Your task to perform on an android device: Show me some nice wallpapers for my desktop Image 0: 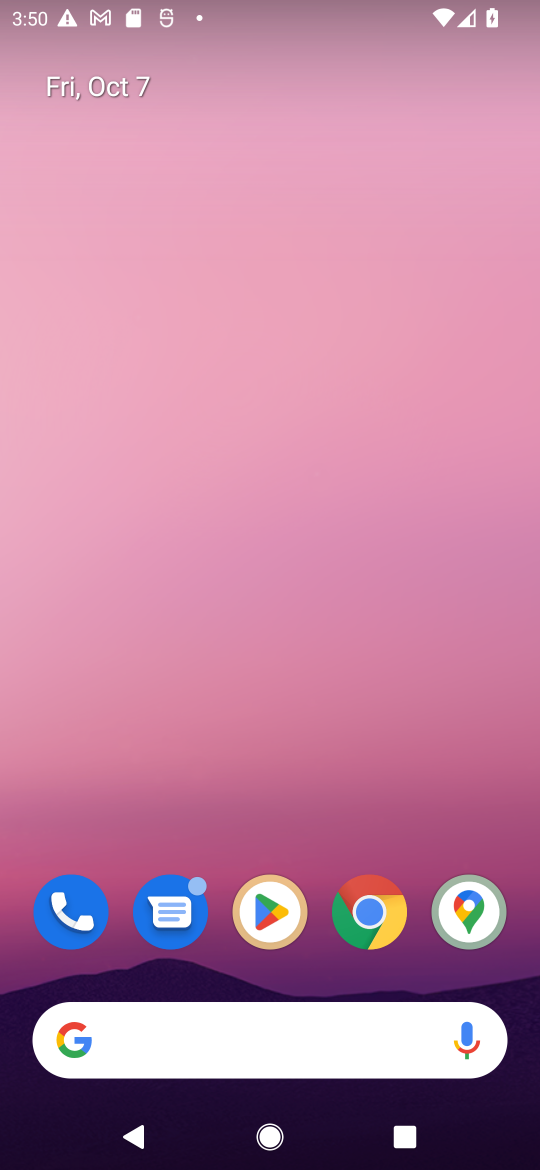
Step 0: drag from (229, 958) to (300, 328)
Your task to perform on an android device: Show me some nice wallpapers for my desktop Image 1: 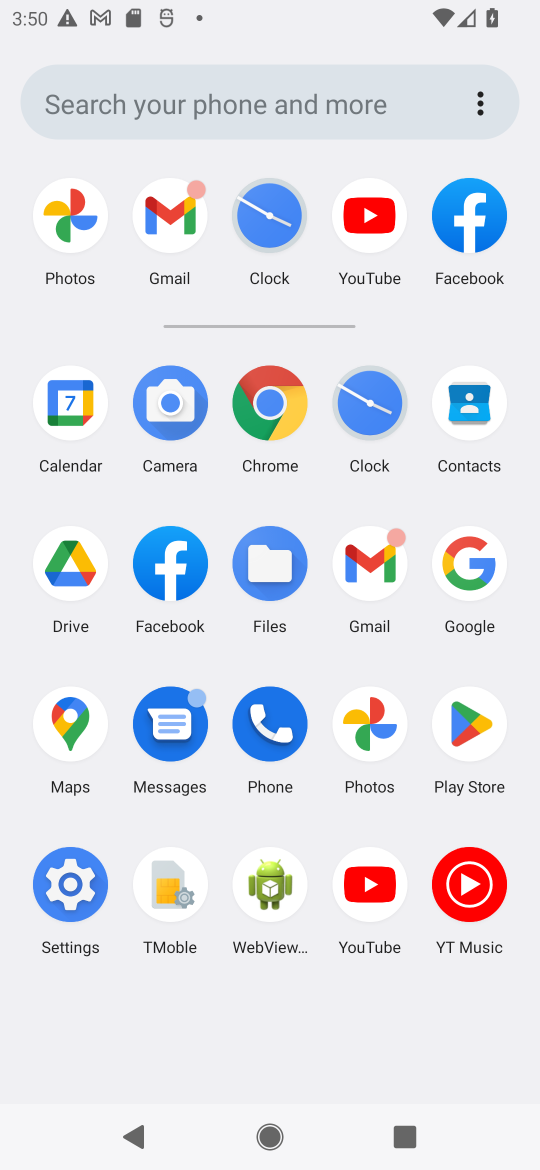
Step 1: click (474, 543)
Your task to perform on an android device: Show me some nice wallpapers for my desktop Image 2: 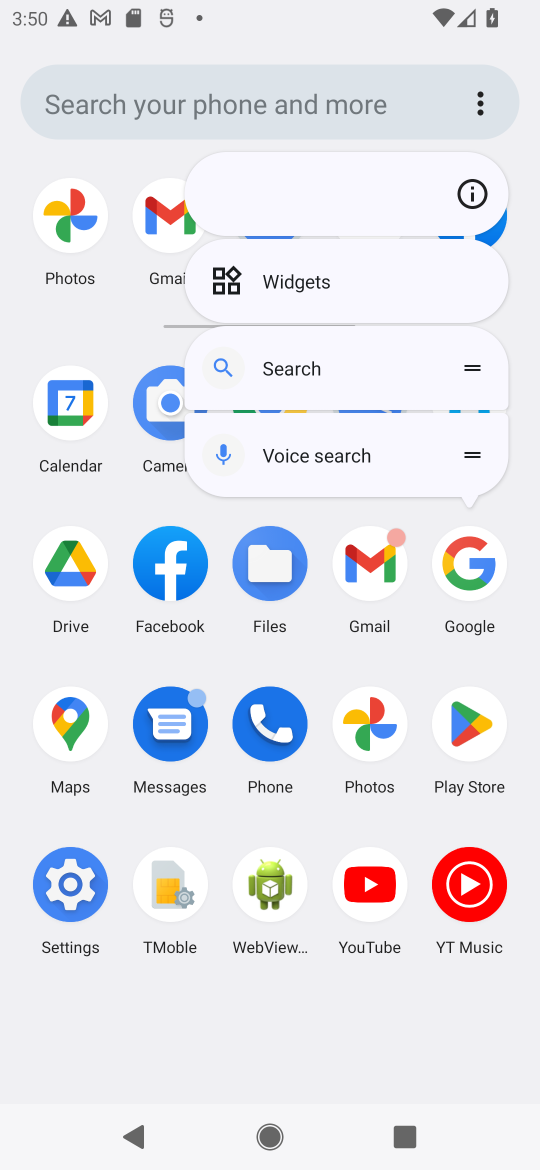
Step 2: click (461, 552)
Your task to perform on an android device: Show me some nice wallpapers for my desktop Image 3: 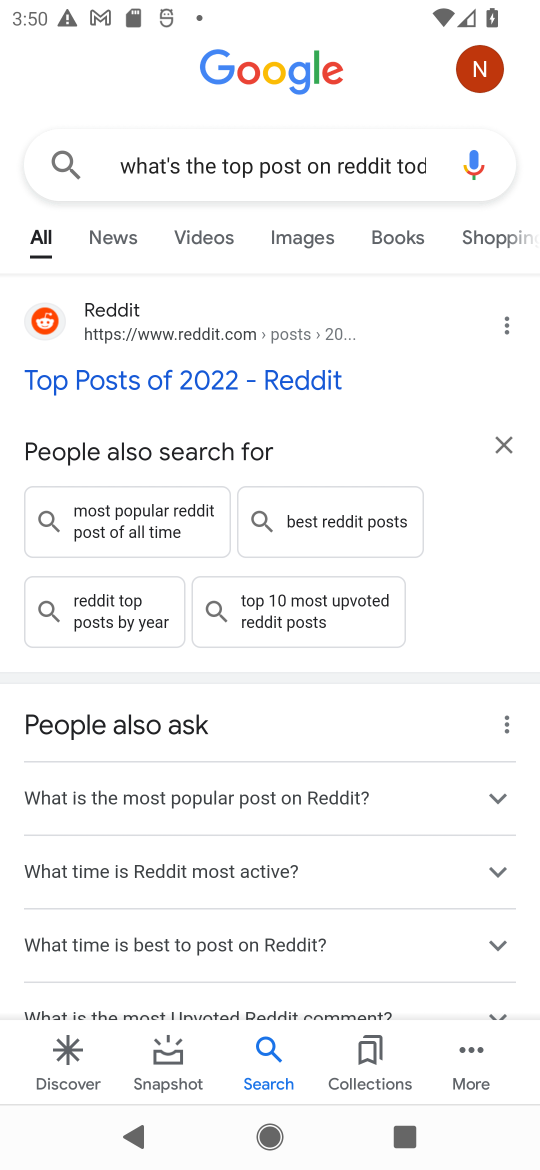
Step 3: click (398, 156)
Your task to perform on an android device: Show me some nice wallpapers for my desktop Image 4: 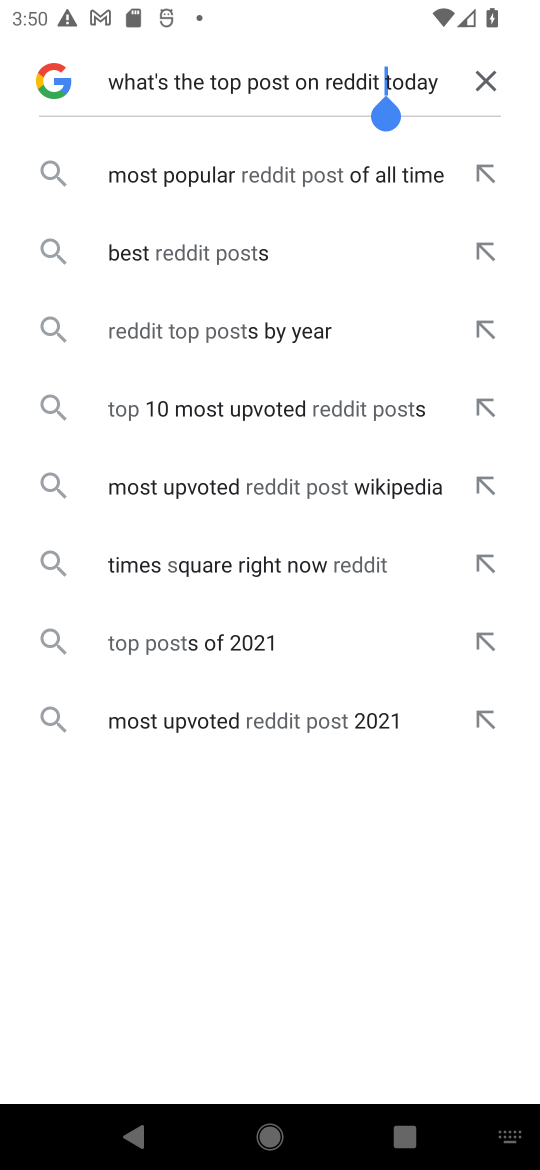
Step 4: click (487, 80)
Your task to perform on an android device: Show me some nice wallpapers for my desktop Image 5: 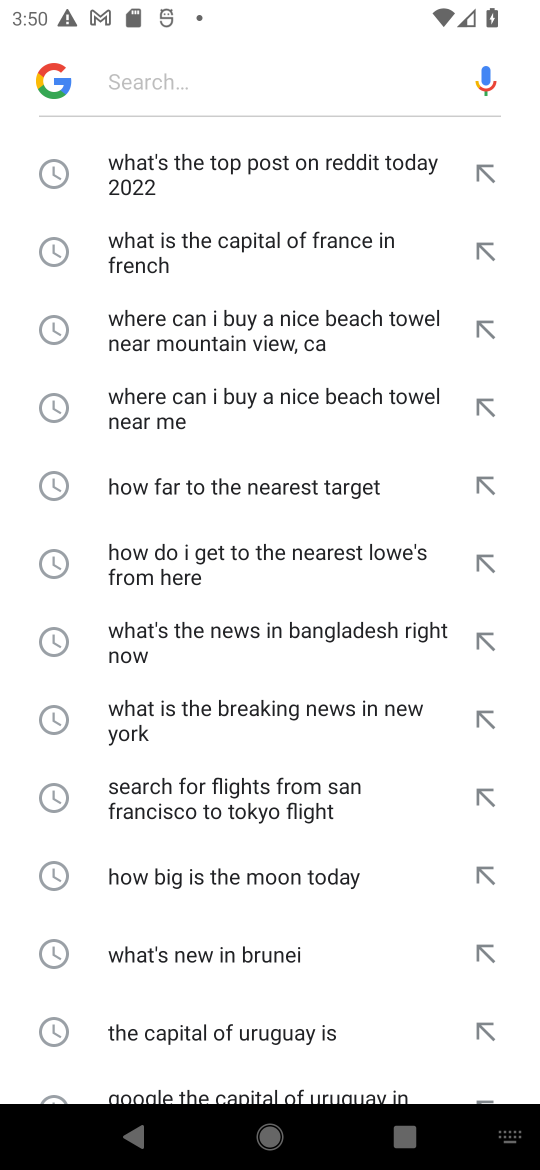
Step 5: click (329, 71)
Your task to perform on an android device: Show me some nice wallpapers for my desktop Image 6: 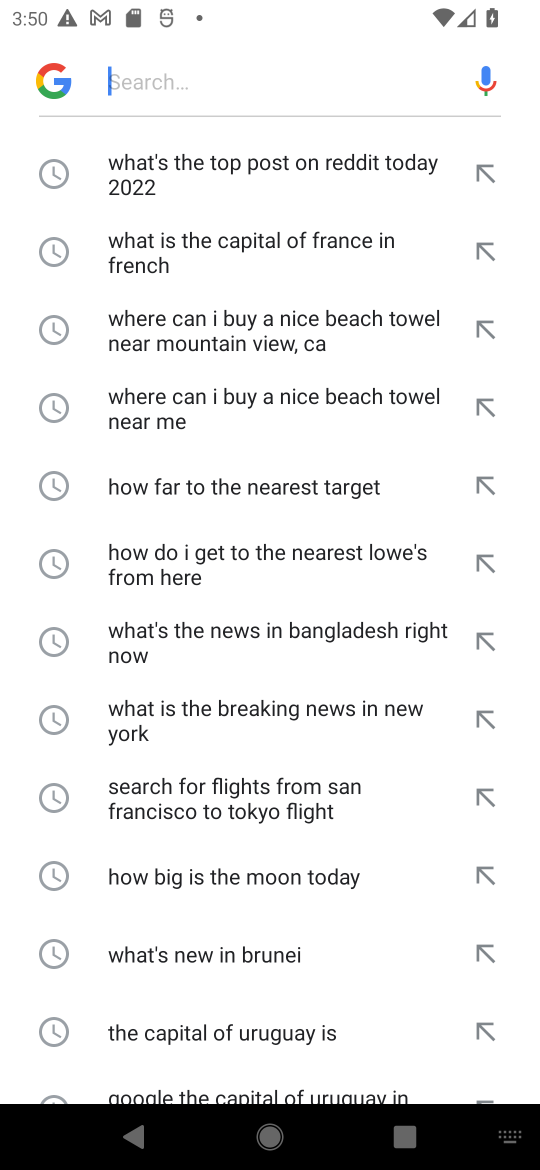
Step 6: type "Show me some nice wallpapers for my desktop "
Your task to perform on an android device: Show me some nice wallpapers for my desktop Image 7: 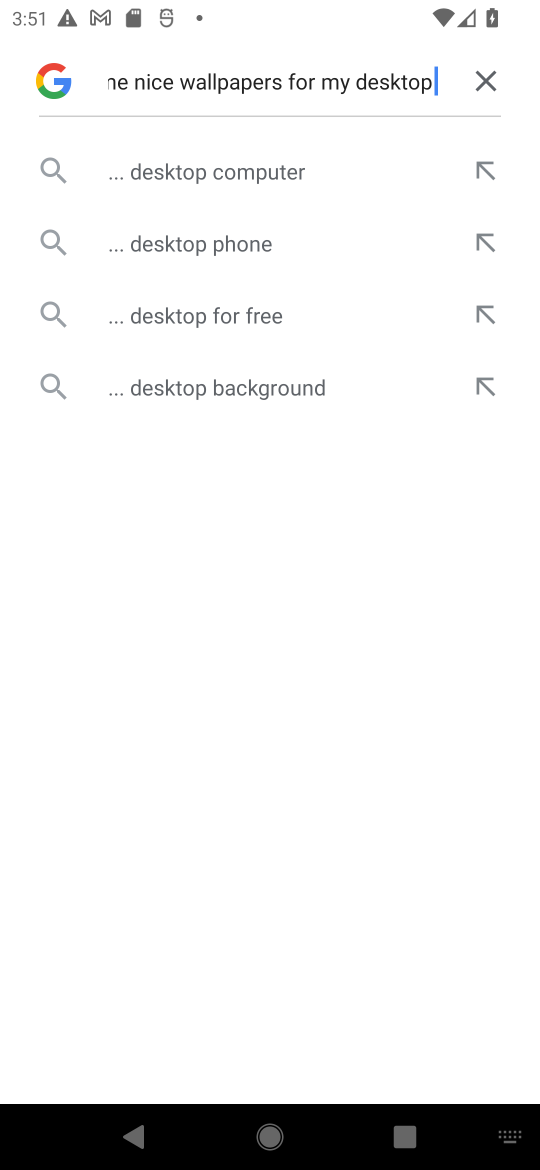
Step 7: click (214, 159)
Your task to perform on an android device: Show me some nice wallpapers for my desktop Image 8: 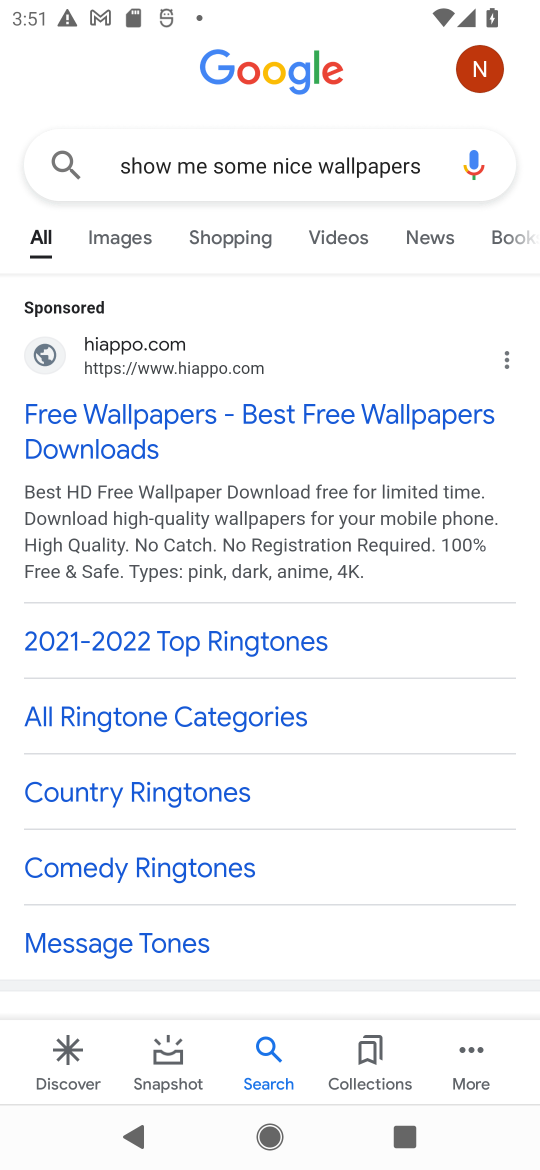
Step 8: click (351, 420)
Your task to perform on an android device: Show me some nice wallpapers for my desktop Image 9: 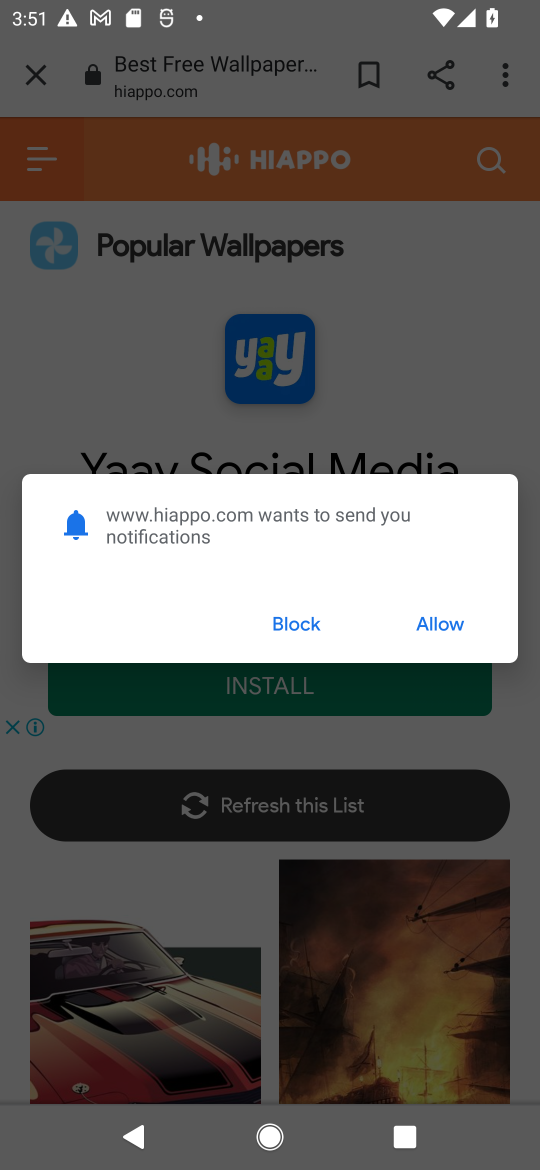
Step 9: click (413, 635)
Your task to perform on an android device: Show me some nice wallpapers for my desktop Image 10: 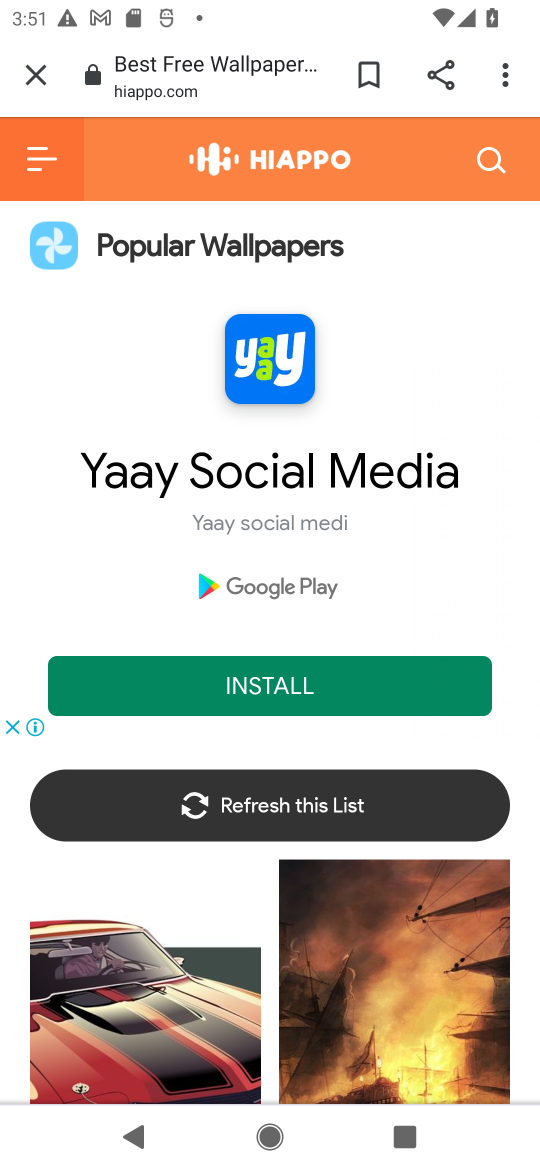
Step 10: task complete